Your task to perform on an android device: toggle wifi Image 0: 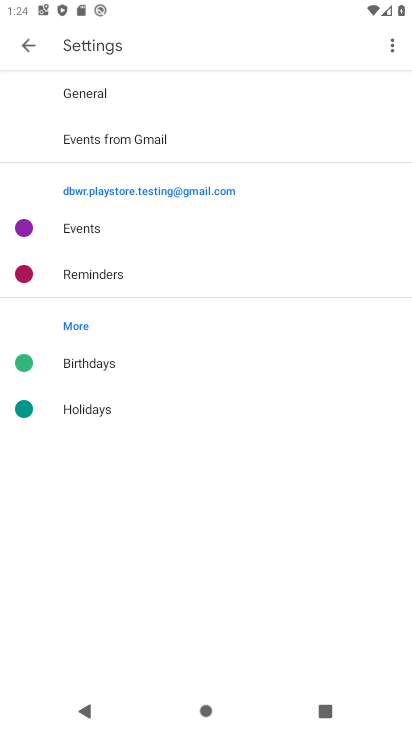
Step 0: press home button
Your task to perform on an android device: toggle wifi Image 1: 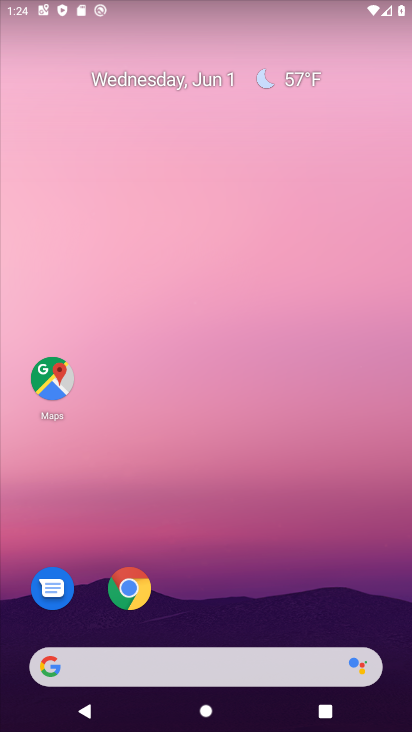
Step 1: drag from (280, 545) to (188, 21)
Your task to perform on an android device: toggle wifi Image 2: 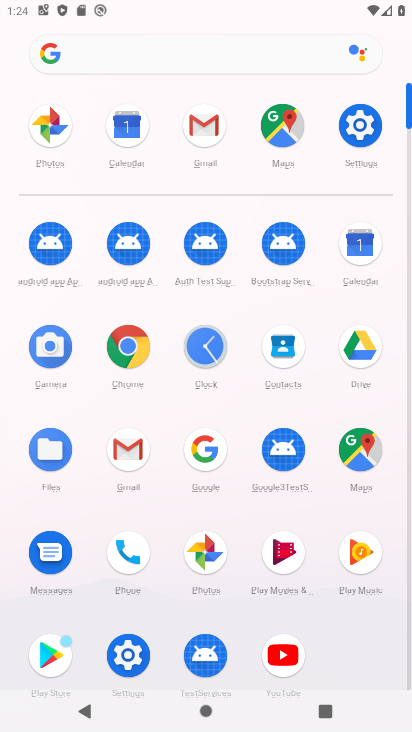
Step 2: click (363, 130)
Your task to perform on an android device: toggle wifi Image 3: 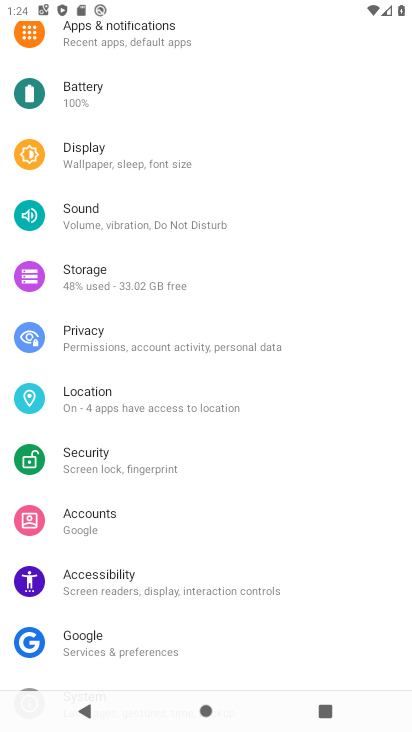
Step 3: drag from (210, 169) to (217, 657)
Your task to perform on an android device: toggle wifi Image 4: 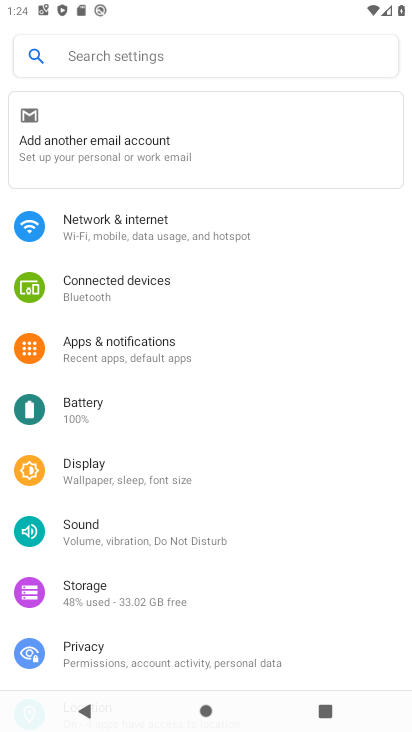
Step 4: click (164, 224)
Your task to perform on an android device: toggle wifi Image 5: 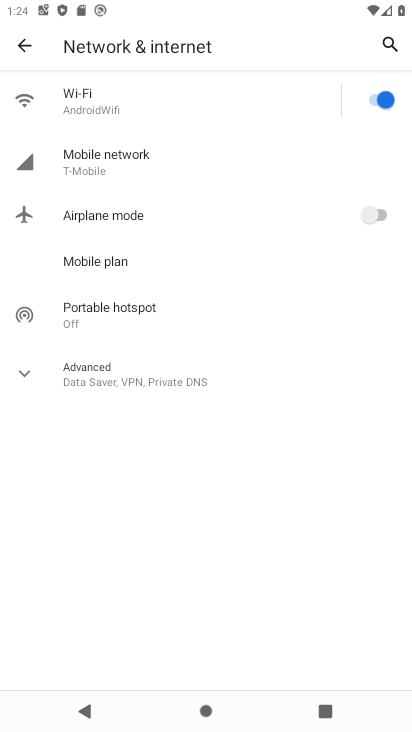
Step 5: click (156, 97)
Your task to perform on an android device: toggle wifi Image 6: 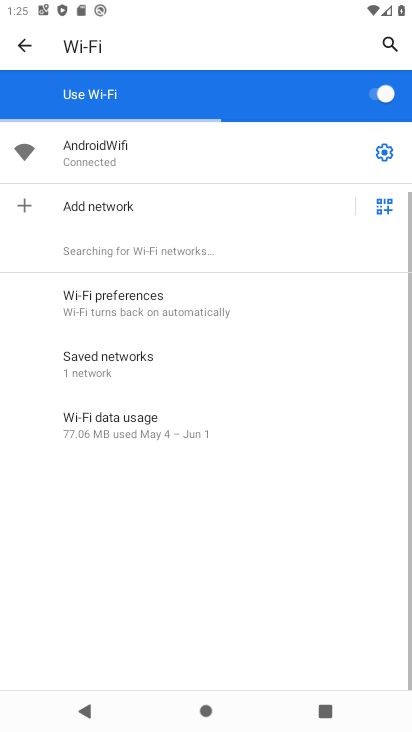
Step 6: click (385, 99)
Your task to perform on an android device: toggle wifi Image 7: 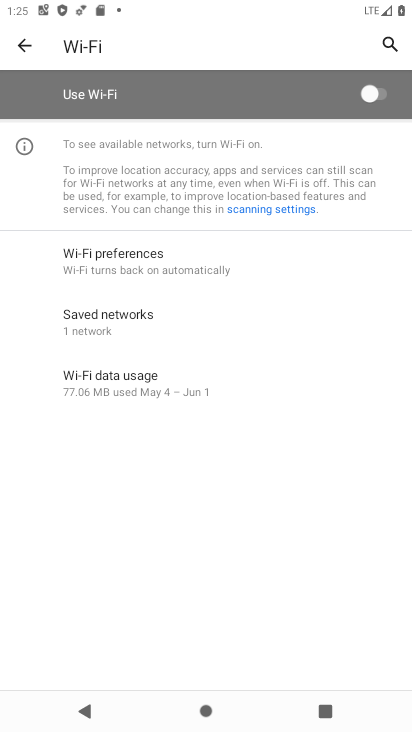
Step 7: task complete